Your task to perform on an android device: Open ESPN.com Image 0: 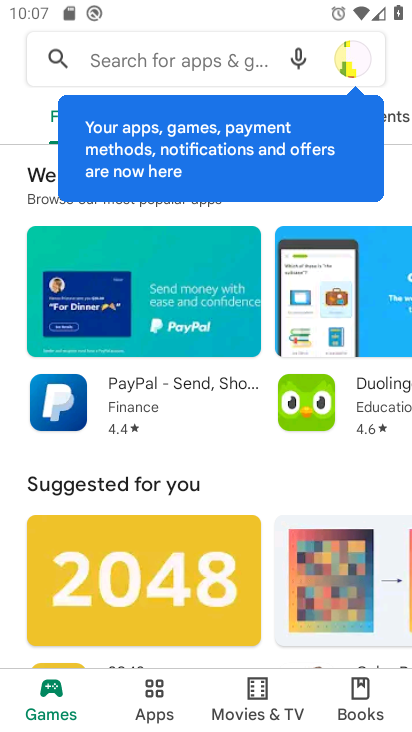
Step 0: press home button
Your task to perform on an android device: Open ESPN.com Image 1: 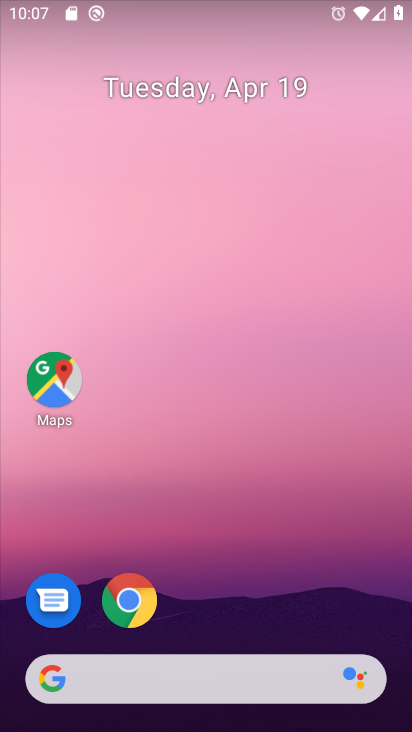
Step 1: click (134, 601)
Your task to perform on an android device: Open ESPN.com Image 2: 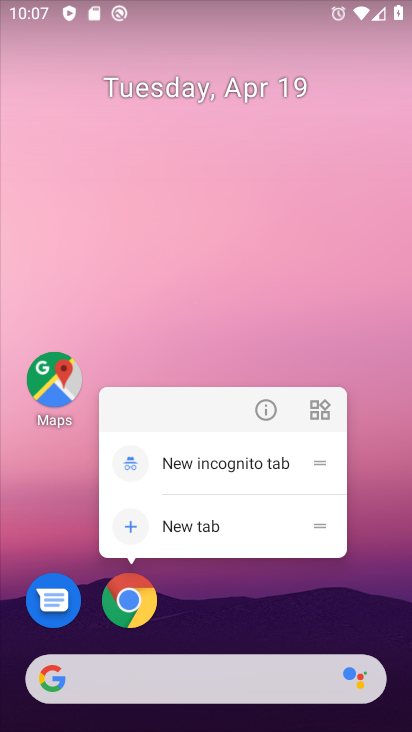
Step 2: click (135, 600)
Your task to perform on an android device: Open ESPN.com Image 3: 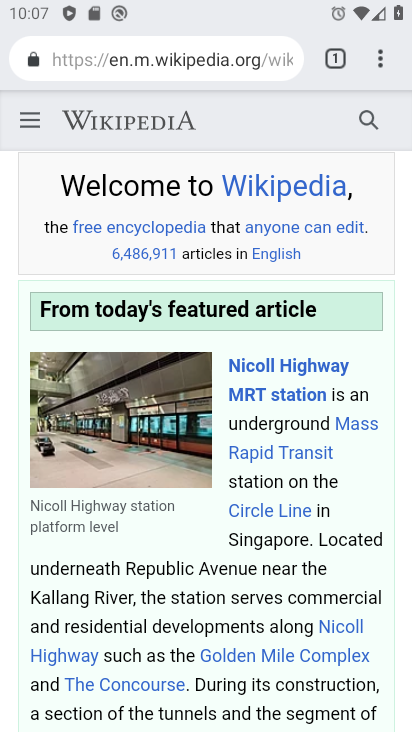
Step 3: click (327, 52)
Your task to perform on an android device: Open ESPN.com Image 4: 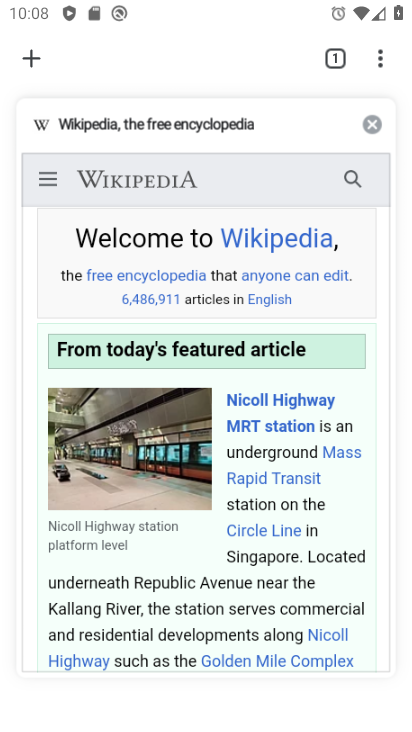
Step 4: click (27, 55)
Your task to perform on an android device: Open ESPN.com Image 5: 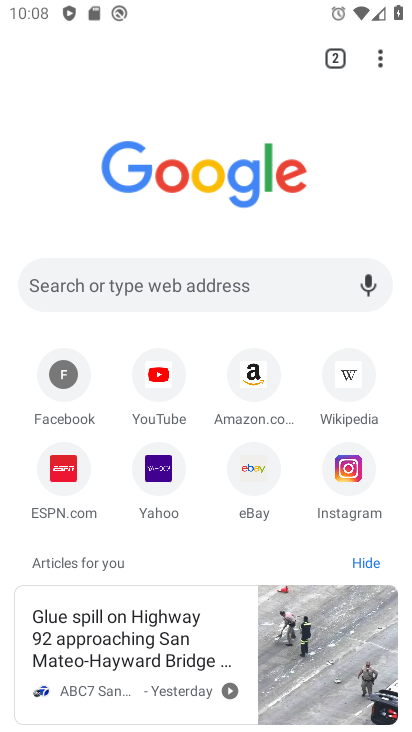
Step 5: click (64, 470)
Your task to perform on an android device: Open ESPN.com Image 6: 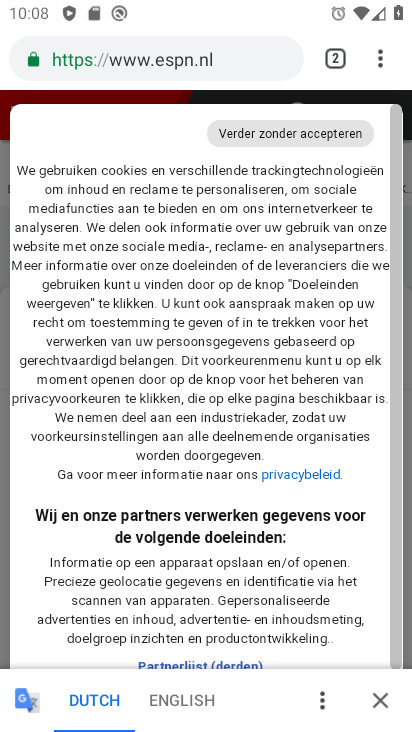
Step 6: task complete